Your task to perform on an android device: turn notification dots off Image 0: 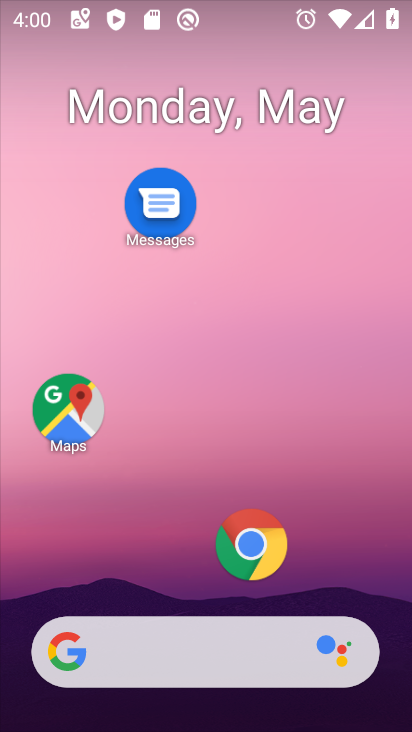
Step 0: drag from (184, 574) to (189, 93)
Your task to perform on an android device: turn notification dots off Image 1: 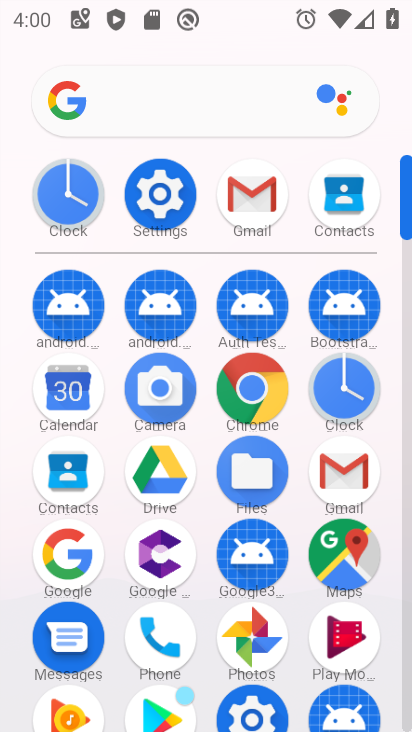
Step 1: click (148, 198)
Your task to perform on an android device: turn notification dots off Image 2: 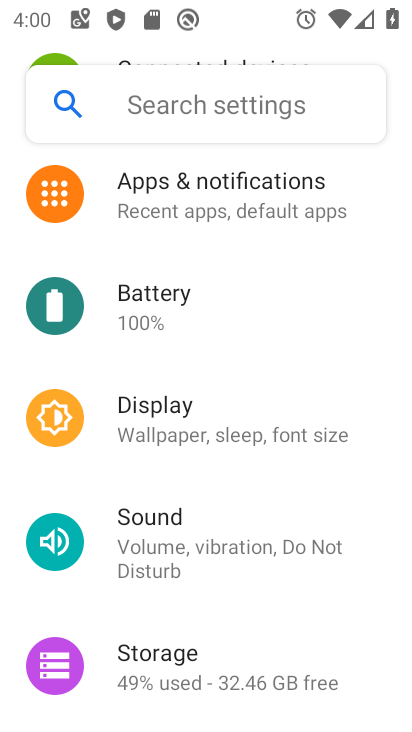
Step 2: click (220, 214)
Your task to perform on an android device: turn notification dots off Image 3: 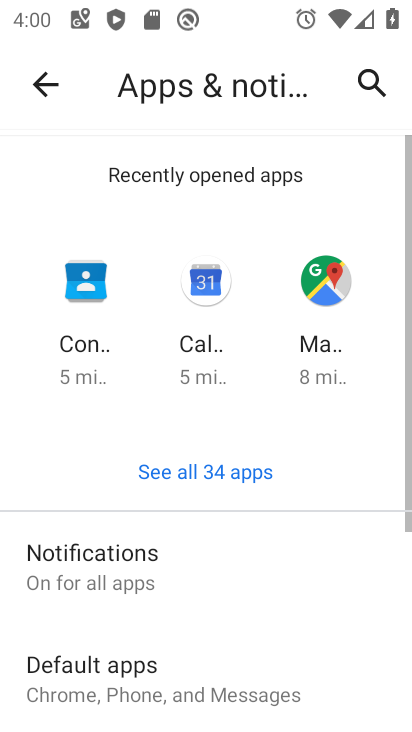
Step 3: click (190, 542)
Your task to perform on an android device: turn notification dots off Image 4: 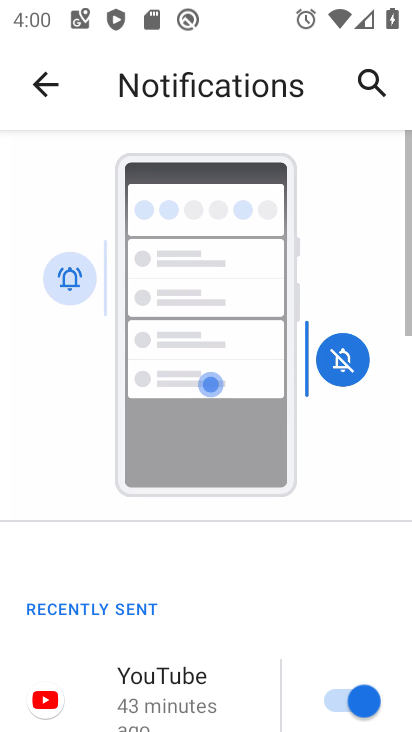
Step 4: drag from (196, 606) to (216, 160)
Your task to perform on an android device: turn notification dots off Image 5: 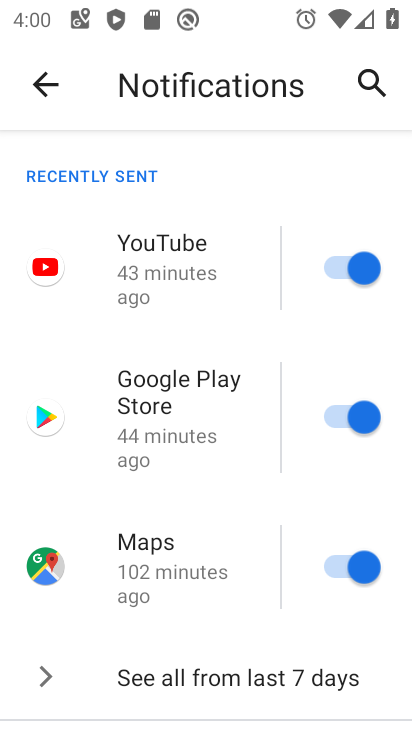
Step 5: drag from (220, 651) to (266, 175)
Your task to perform on an android device: turn notification dots off Image 6: 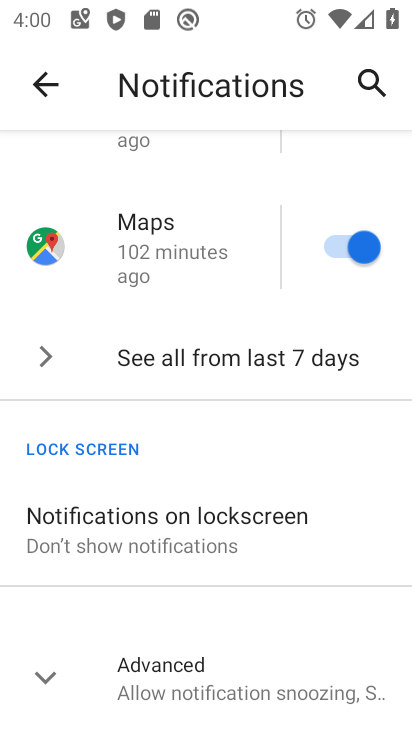
Step 6: click (234, 668)
Your task to perform on an android device: turn notification dots off Image 7: 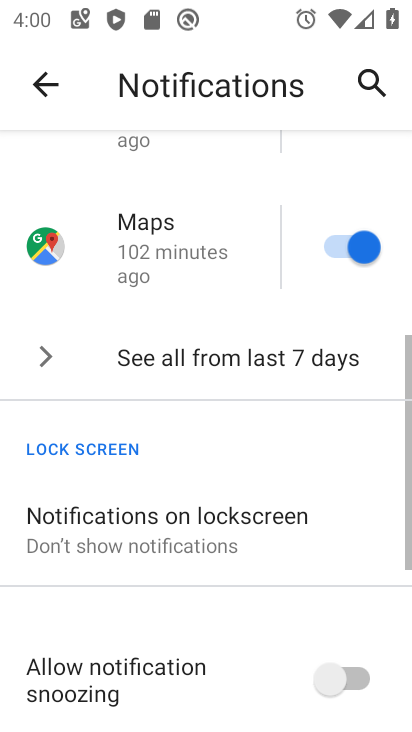
Step 7: drag from (240, 666) to (262, 240)
Your task to perform on an android device: turn notification dots off Image 8: 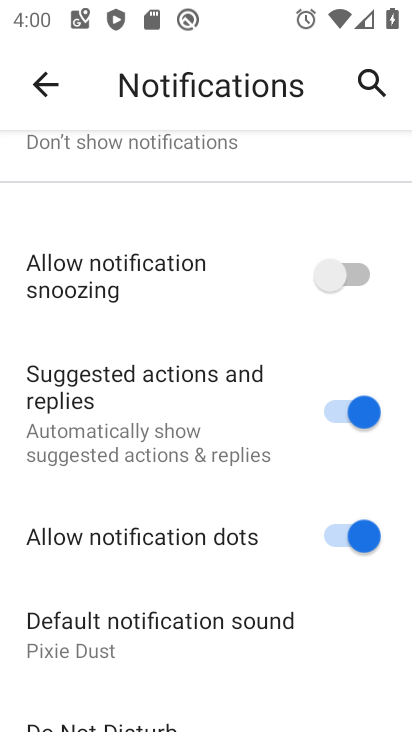
Step 8: click (337, 541)
Your task to perform on an android device: turn notification dots off Image 9: 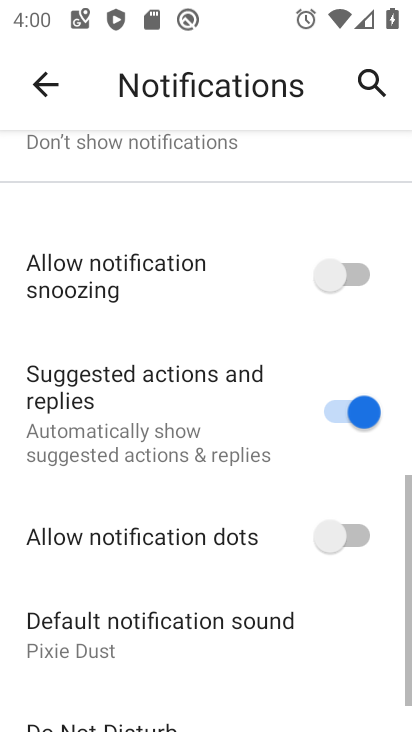
Step 9: task complete